Your task to perform on an android device: Go to wifi settings Image 0: 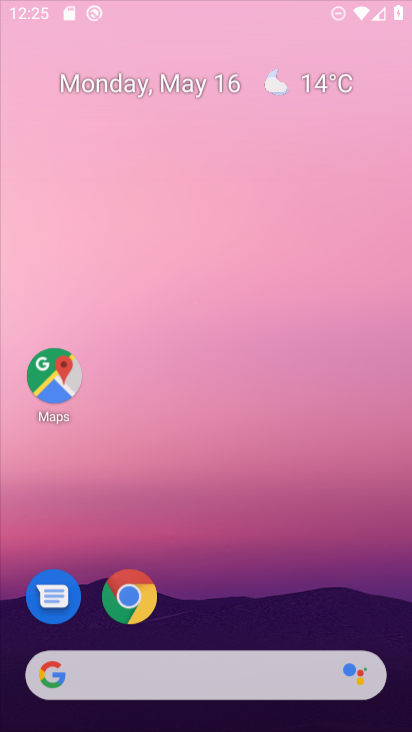
Step 0: press home button
Your task to perform on an android device: Go to wifi settings Image 1: 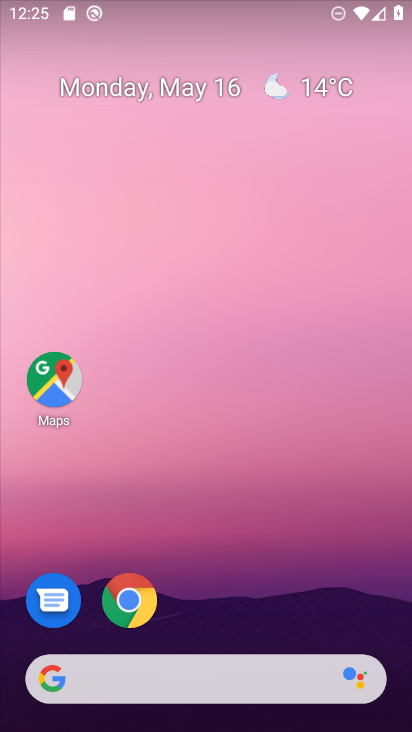
Step 1: drag from (209, 630) to (249, 80)
Your task to perform on an android device: Go to wifi settings Image 2: 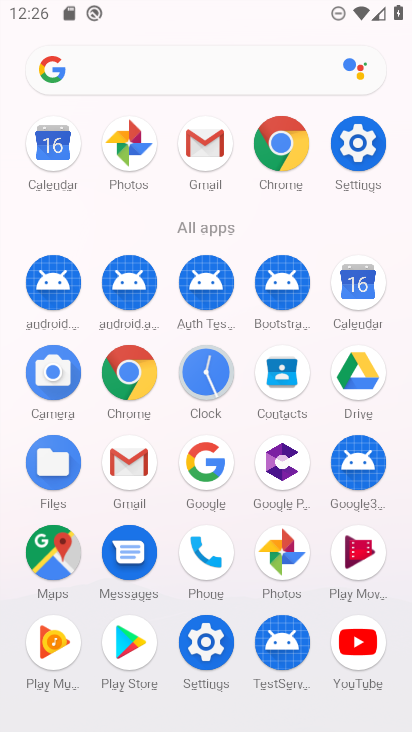
Step 2: click (358, 139)
Your task to perform on an android device: Go to wifi settings Image 3: 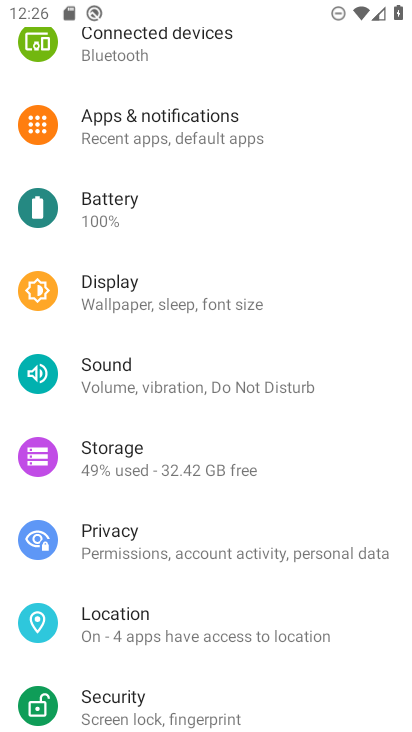
Step 3: drag from (181, 78) to (174, 658)
Your task to perform on an android device: Go to wifi settings Image 4: 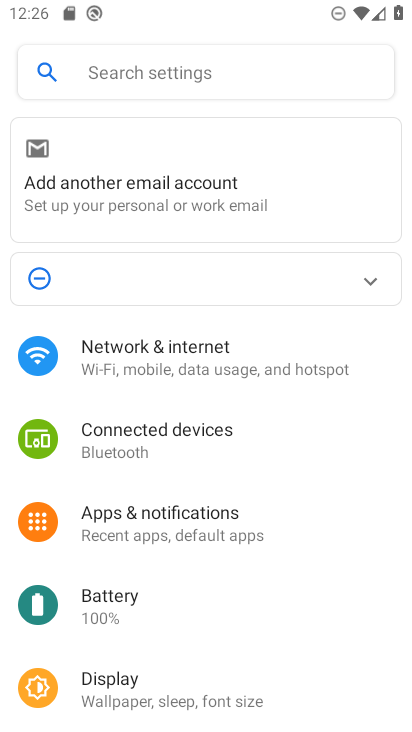
Step 4: click (249, 344)
Your task to perform on an android device: Go to wifi settings Image 5: 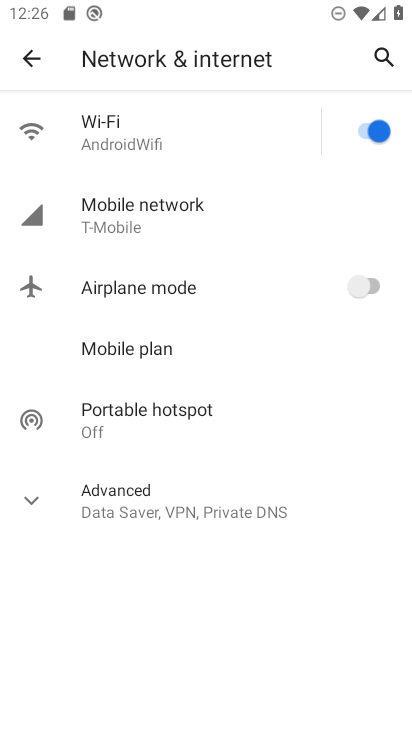
Step 5: click (204, 132)
Your task to perform on an android device: Go to wifi settings Image 6: 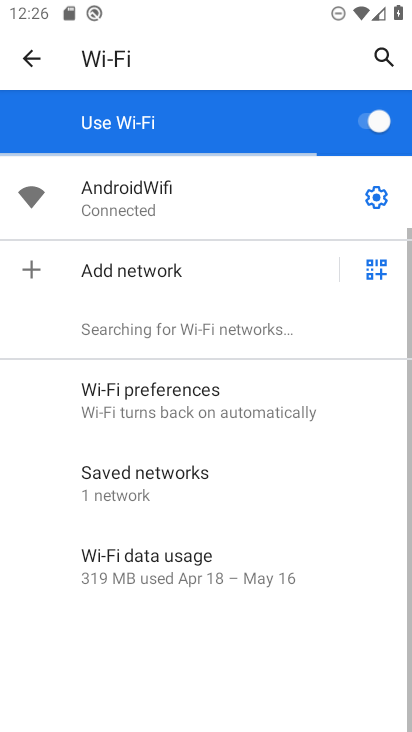
Step 6: task complete